Your task to perform on an android device: Show me productivity apps on the Play Store Image 0: 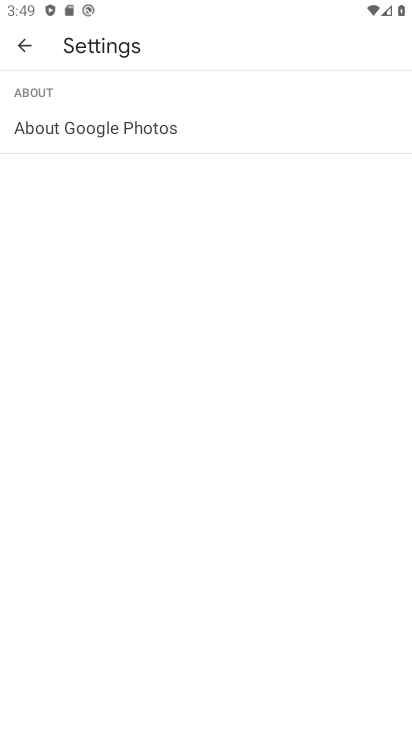
Step 0: press home button
Your task to perform on an android device: Show me productivity apps on the Play Store Image 1: 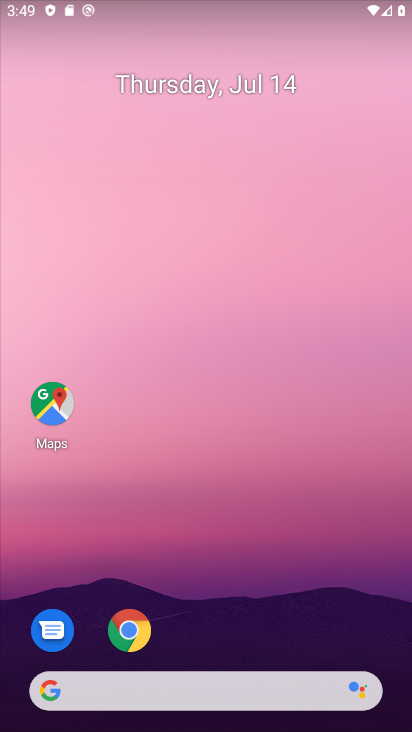
Step 1: drag from (357, 610) to (350, 104)
Your task to perform on an android device: Show me productivity apps on the Play Store Image 2: 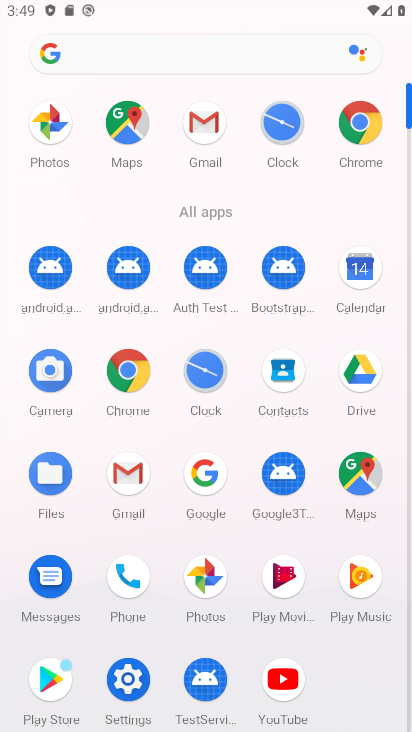
Step 2: click (57, 681)
Your task to perform on an android device: Show me productivity apps on the Play Store Image 3: 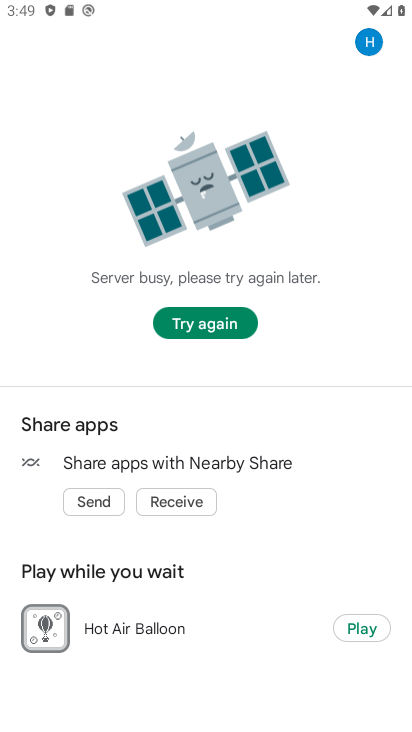
Step 3: task complete